Your task to perform on an android device: check android version Image 0: 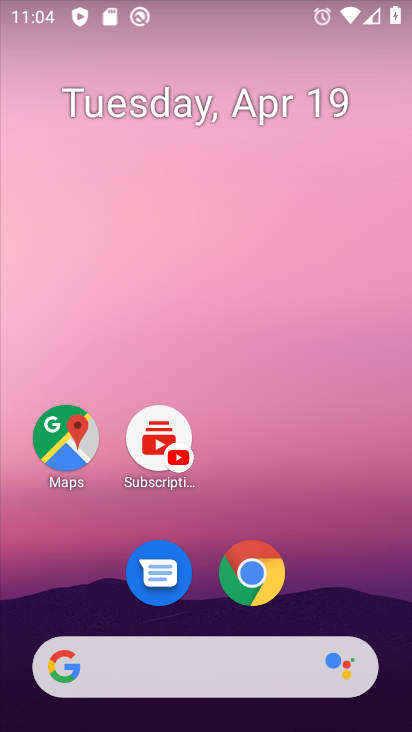
Step 0: drag from (311, 557) to (250, 80)
Your task to perform on an android device: check android version Image 1: 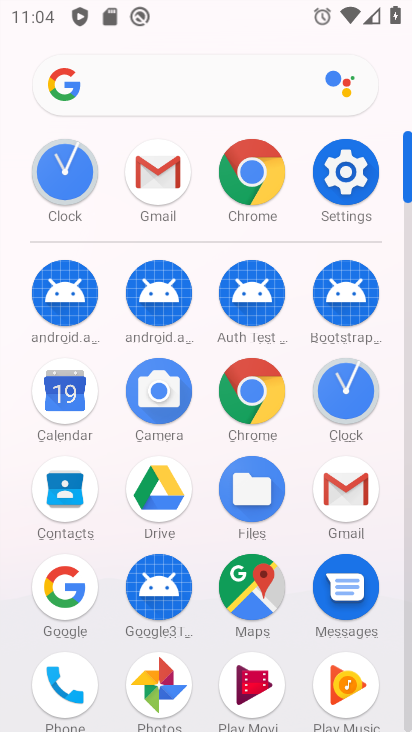
Step 1: click (345, 194)
Your task to perform on an android device: check android version Image 2: 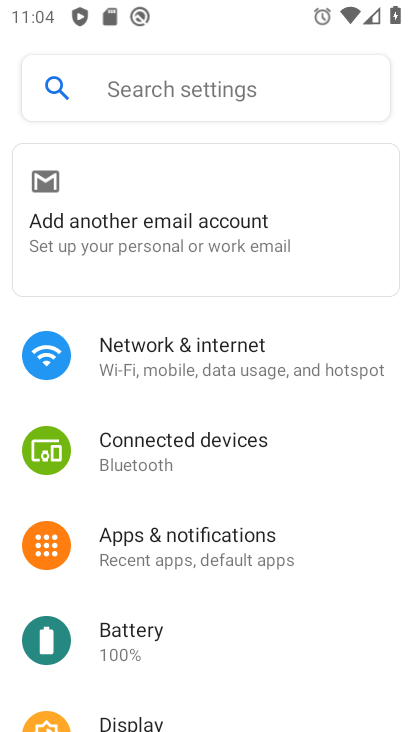
Step 2: drag from (111, 680) to (127, 231)
Your task to perform on an android device: check android version Image 3: 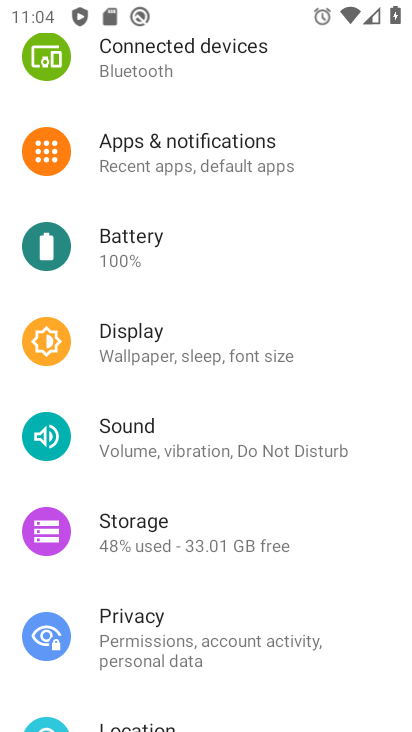
Step 3: drag from (178, 646) to (175, 124)
Your task to perform on an android device: check android version Image 4: 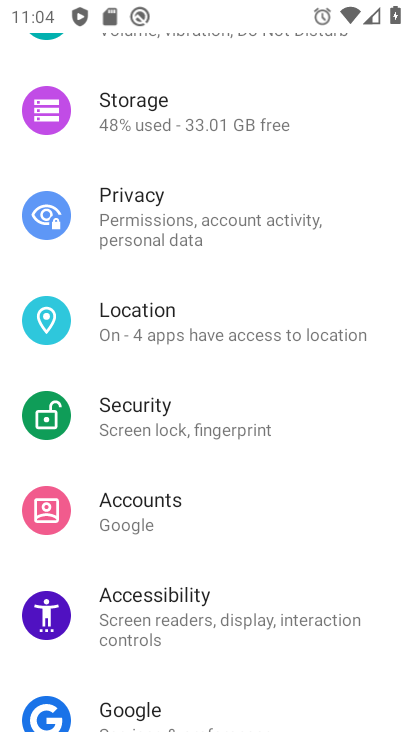
Step 4: drag from (99, 701) to (122, 190)
Your task to perform on an android device: check android version Image 5: 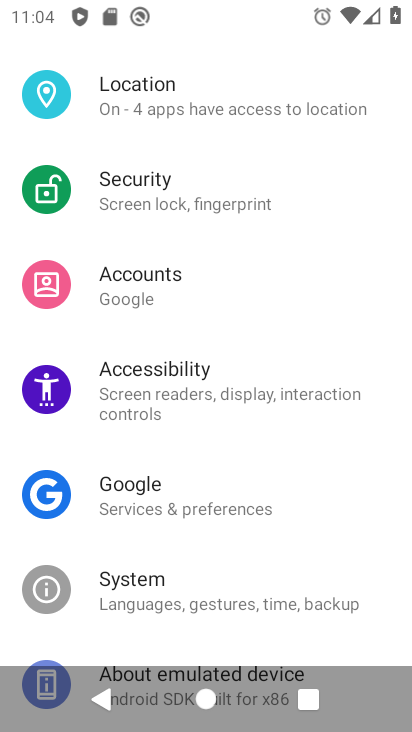
Step 5: drag from (78, 633) to (78, 249)
Your task to perform on an android device: check android version Image 6: 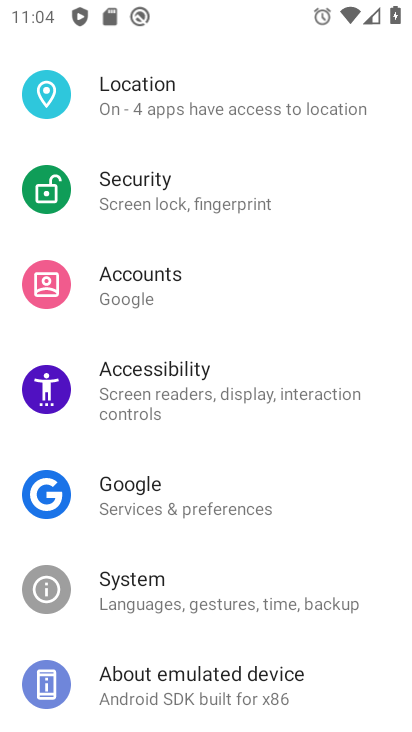
Step 6: click (190, 691)
Your task to perform on an android device: check android version Image 7: 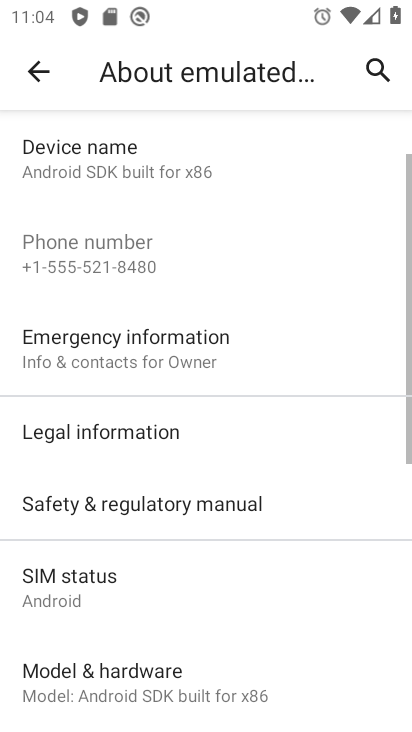
Step 7: drag from (182, 676) to (154, 209)
Your task to perform on an android device: check android version Image 8: 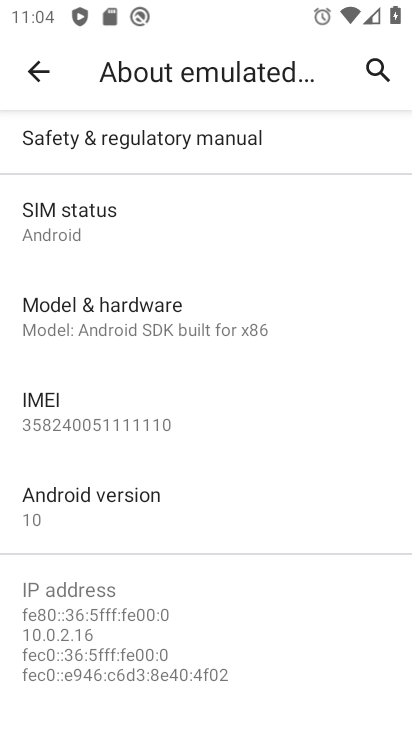
Step 8: click (59, 499)
Your task to perform on an android device: check android version Image 9: 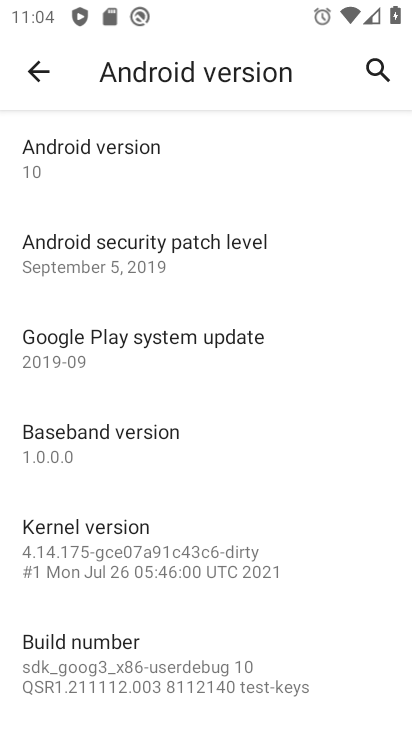
Step 9: click (112, 142)
Your task to perform on an android device: check android version Image 10: 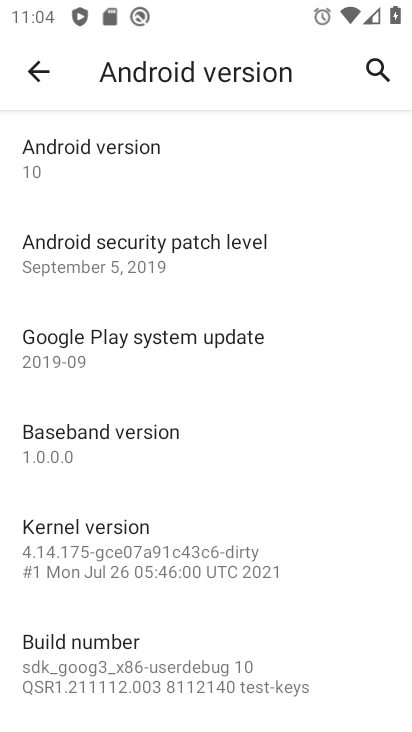
Step 10: task complete